Your task to perform on an android device: toggle show notifications on the lock screen Image 0: 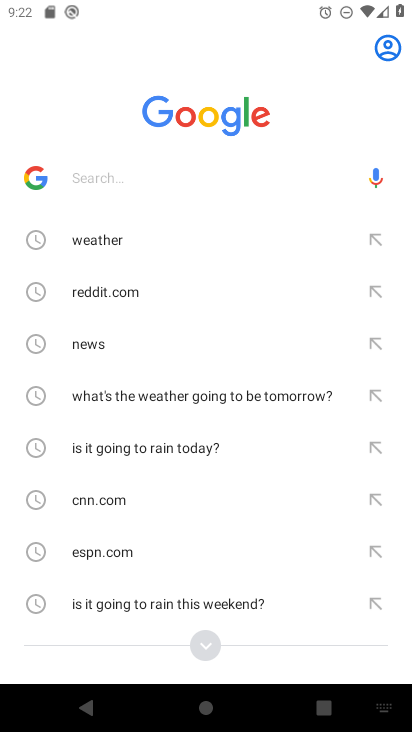
Step 0: press home button
Your task to perform on an android device: toggle show notifications on the lock screen Image 1: 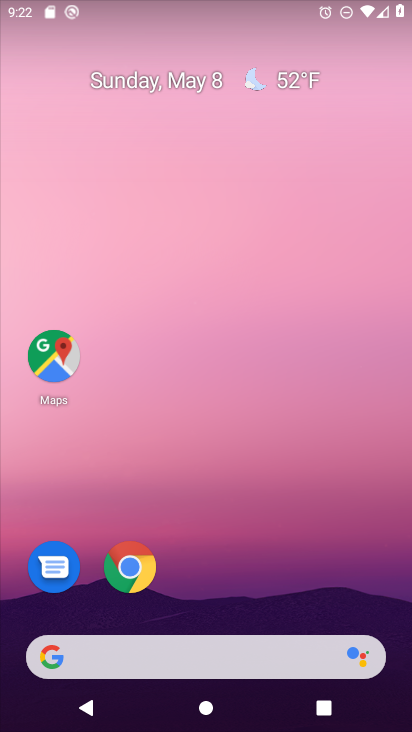
Step 1: drag from (268, 521) to (235, 170)
Your task to perform on an android device: toggle show notifications on the lock screen Image 2: 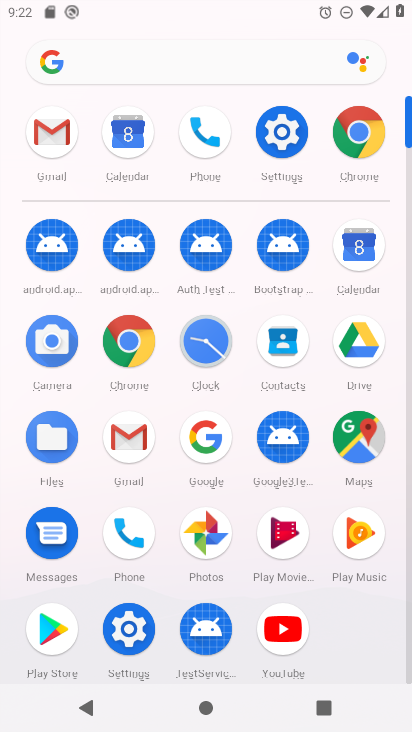
Step 2: click (266, 136)
Your task to perform on an android device: toggle show notifications on the lock screen Image 3: 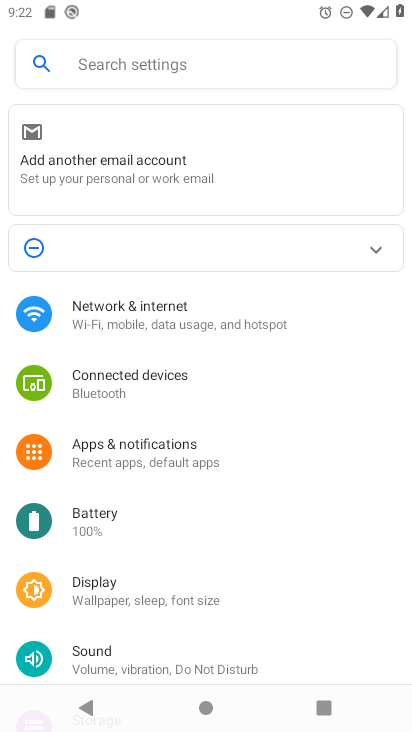
Step 3: click (184, 470)
Your task to perform on an android device: toggle show notifications on the lock screen Image 4: 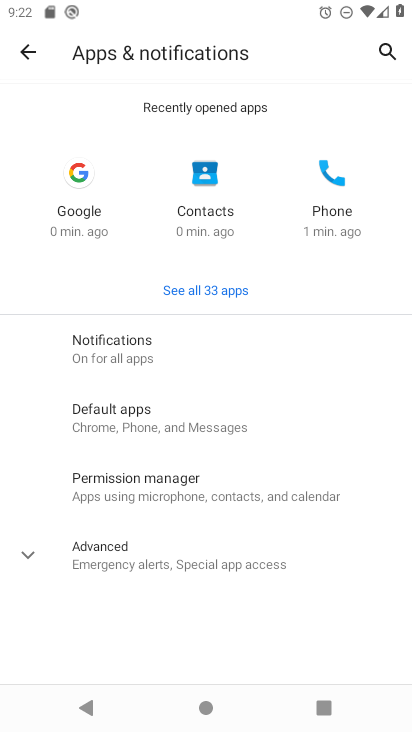
Step 4: click (124, 321)
Your task to perform on an android device: toggle show notifications on the lock screen Image 5: 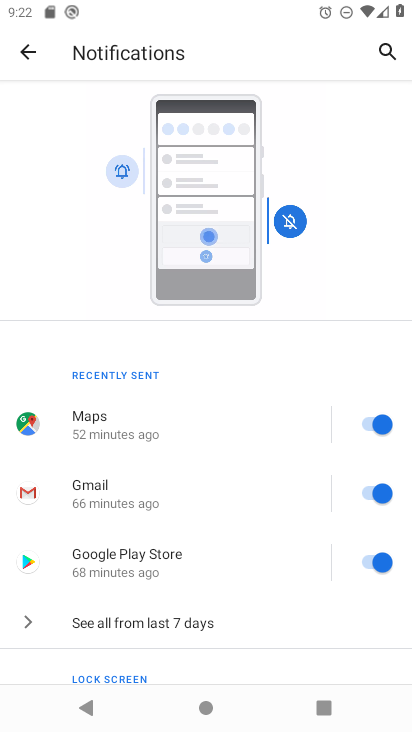
Step 5: drag from (187, 604) to (123, 213)
Your task to perform on an android device: toggle show notifications on the lock screen Image 6: 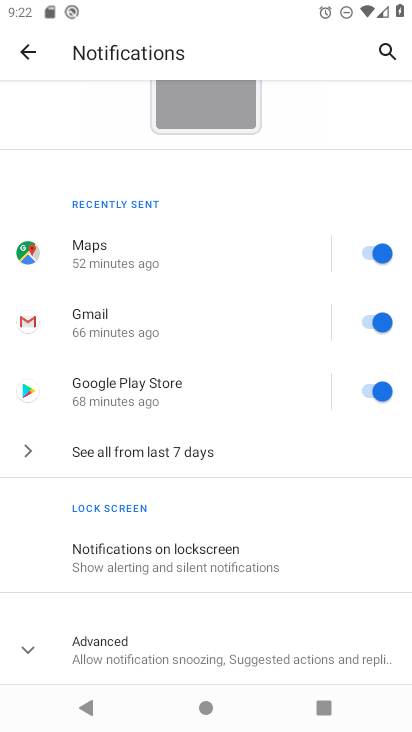
Step 6: click (152, 559)
Your task to perform on an android device: toggle show notifications on the lock screen Image 7: 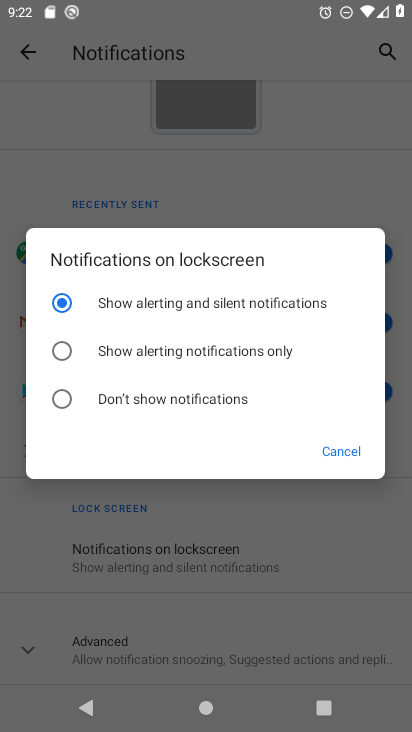
Step 7: click (62, 356)
Your task to perform on an android device: toggle show notifications on the lock screen Image 8: 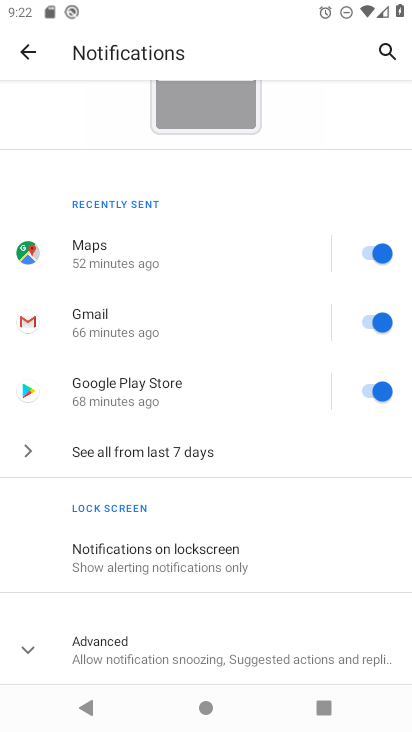
Step 8: task complete